Your task to perform on an android device: Play the last video I watched on Youtube Image 0: 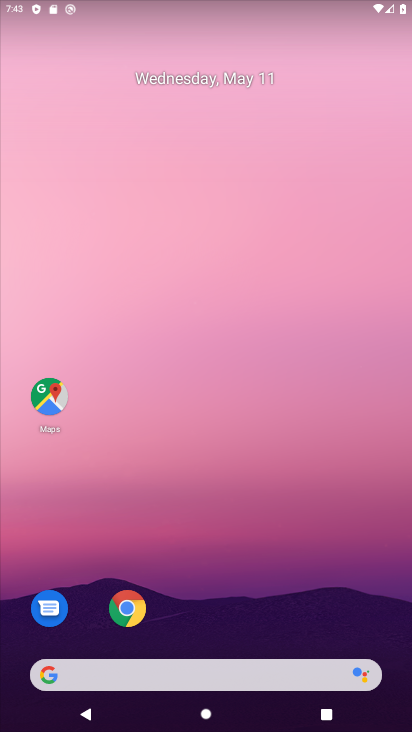
Step 0: drag from (255, 580) to (195, 62)
Your task to perform on an android device: Play the last video I watched on Youtube Image 1: 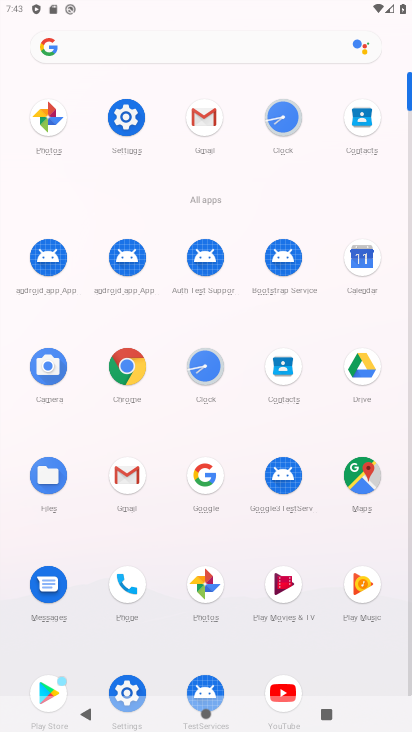
Step 1: click (284, 687)
Your task to perform on an android device: Play the last video I watched on Youtube Image 2: 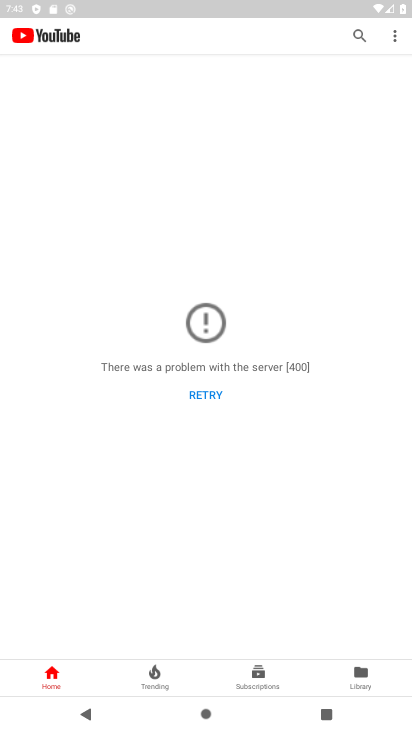
Step 2: click (367, 681)
Your task to perform on an android device: Play the last video I watched on Youtube Image 3: 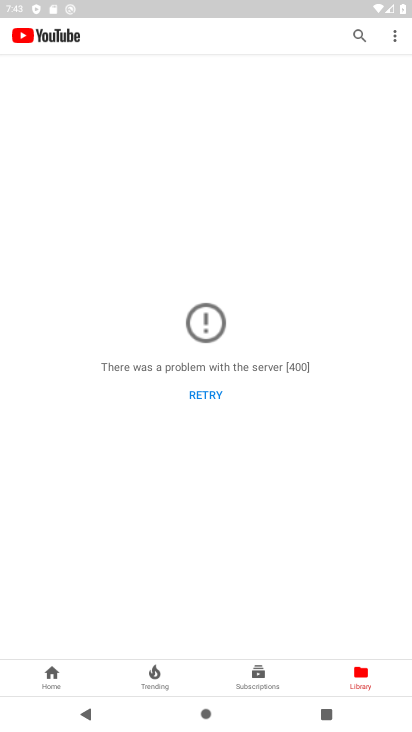
Step 3: click (207, 393)
Your task to perform on an android device: Play the last video I watched on Youtube Image 4: 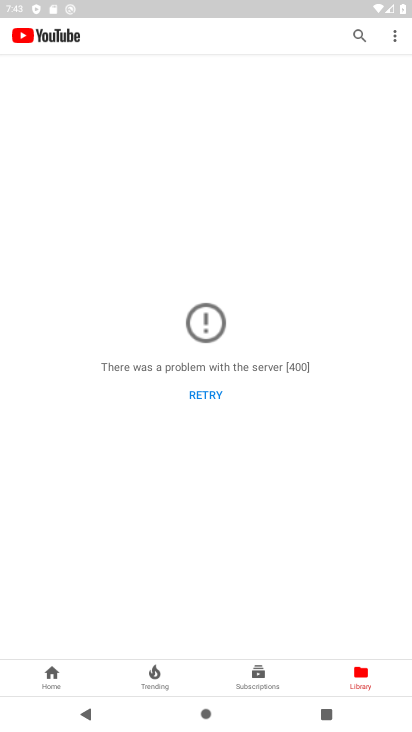
Step 4: click (198, 385)
Your task to perform on an android device: Play the last video I watched on Youtube Image 5: 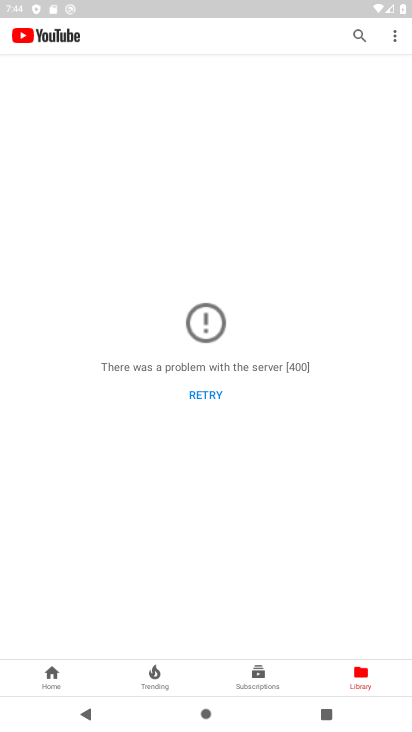
Step 5: click (217, 395)
Your task to perform on an android device: Play the last video I watched on Youtube Image 6: 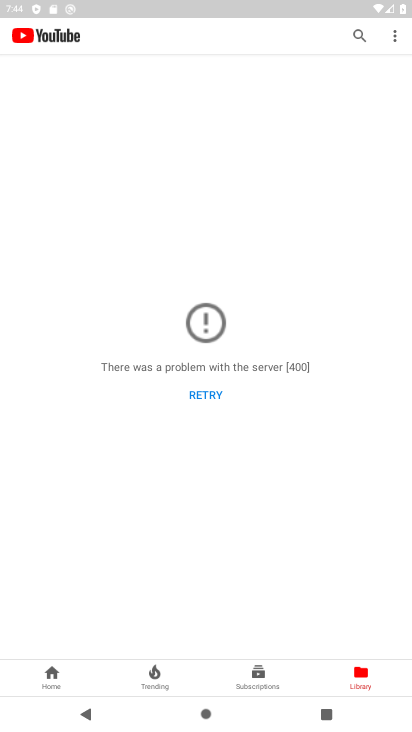
Step 6: click (198, 388)
Your task to perform on an android device: Play the last video I watched on Youtube Image 7: 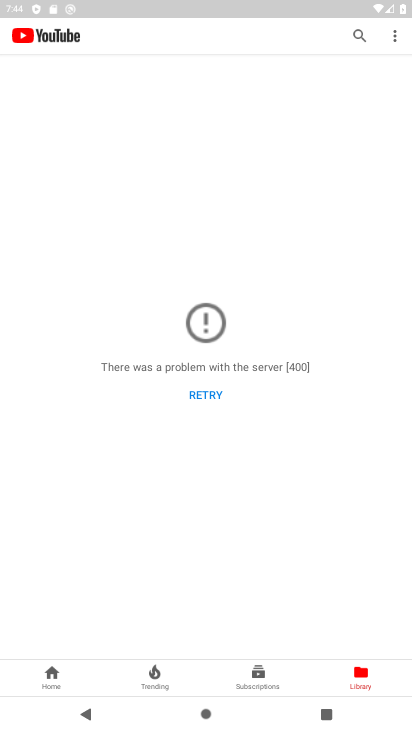
Step 7: click (361, 678)
Your task to perform on an android device: Play the last video I watched on Youtube Image 8: 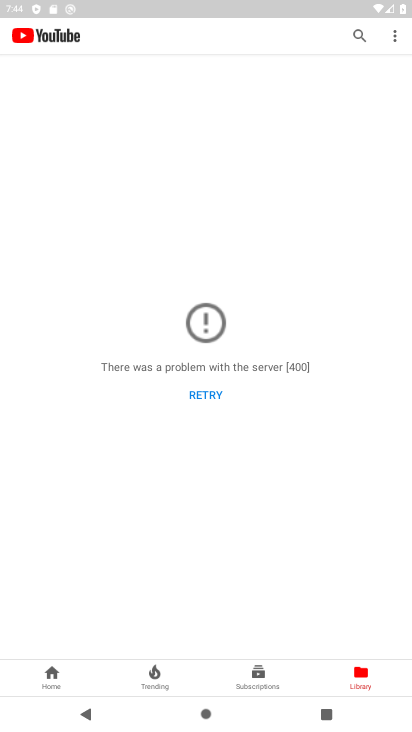
Step 8: task complete